Your task to perform on an android device: Open the web browser Image 0: 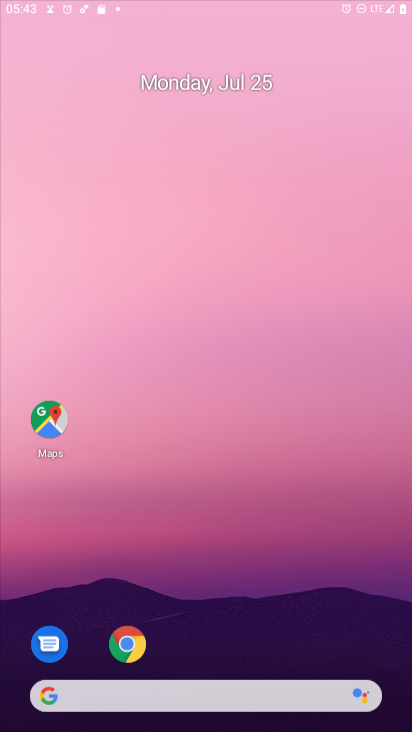
Step 0: press home button
Your task to perform on an android device: Open the web browser Image 1: 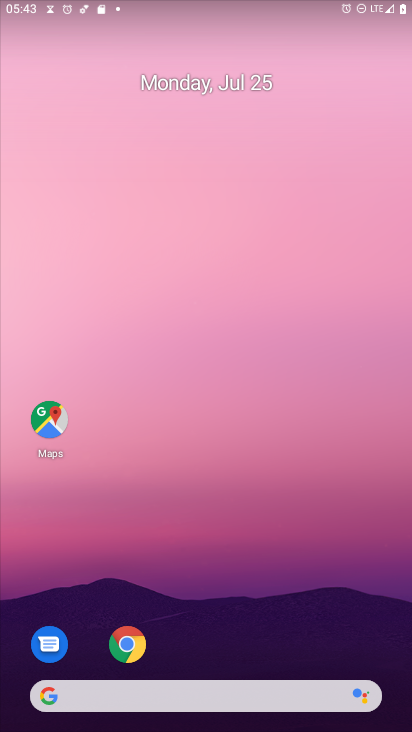
Step 1: click (46, 699)
Your task to perform on an android device: Open the web browser Image 2: 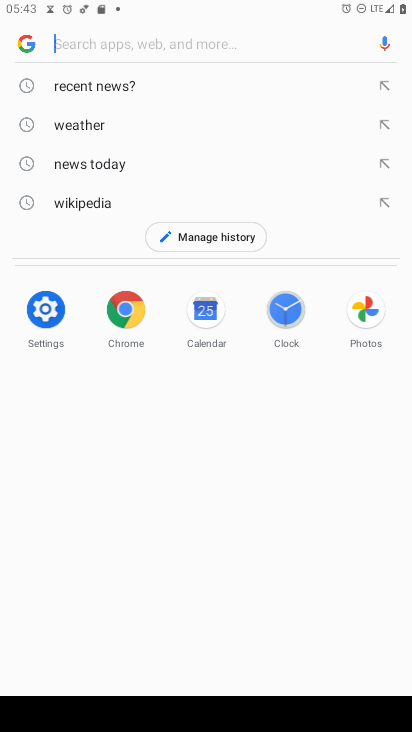
Step 2: task complete